Your task to perform on an android device: Open display settings Image 0: 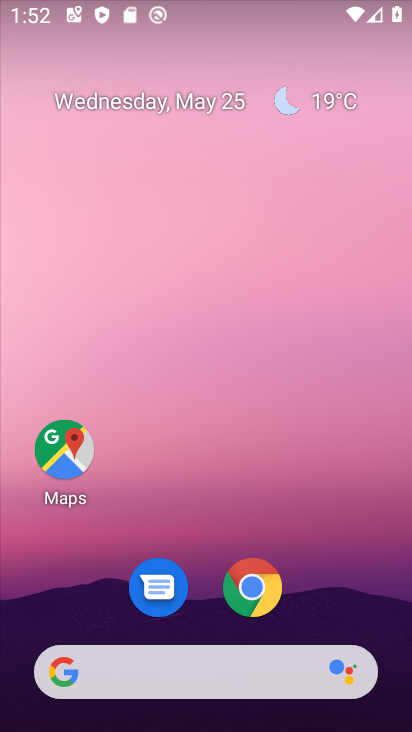
Step 0: drag from (201, 617) to (194, 98)
Your task to perform on an android device: Open display settings Image 1: 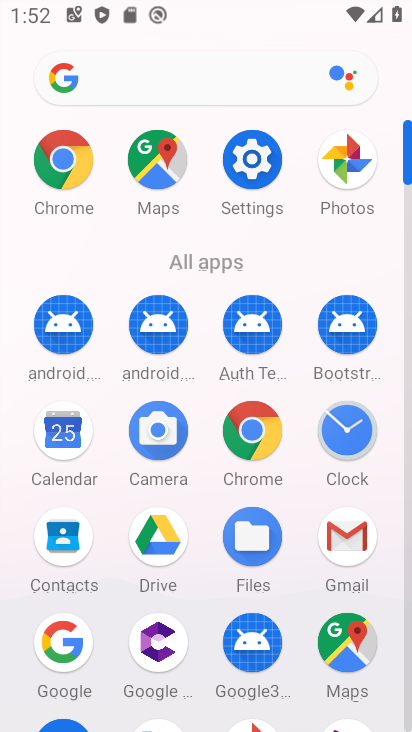
Step 1: click (252, 161)
Your task to perform on an android device: Open display settings Image 2: 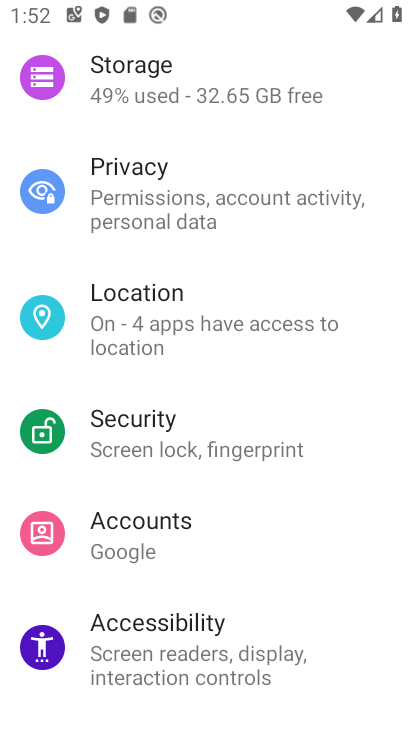
Step 2: drag from (248, 178) to (260, 543)
Your task to perform on an android device: Open display settings Image 3: 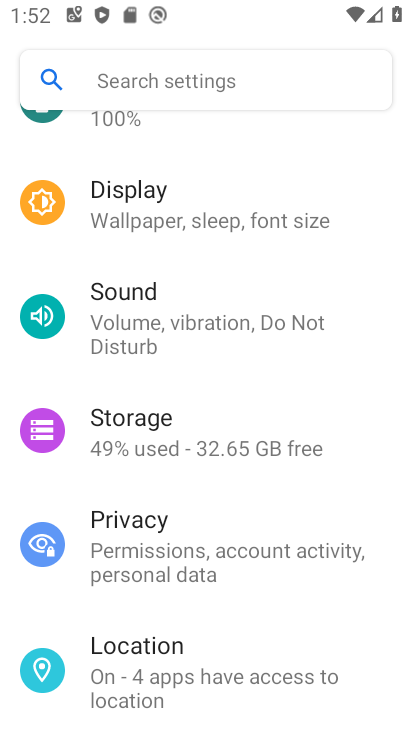
Step 3: click (164, 208)
Your task to perform on an android device: Open display settings Image 4: 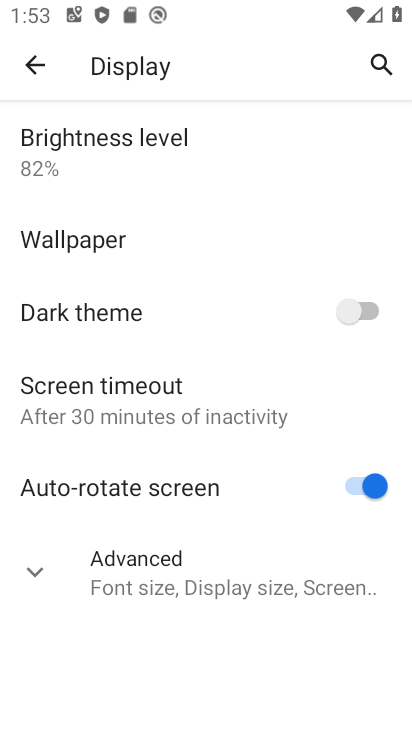
Step 4: task complete